Your task to perform on an android device: allow cookies in the chrome app Image 0: 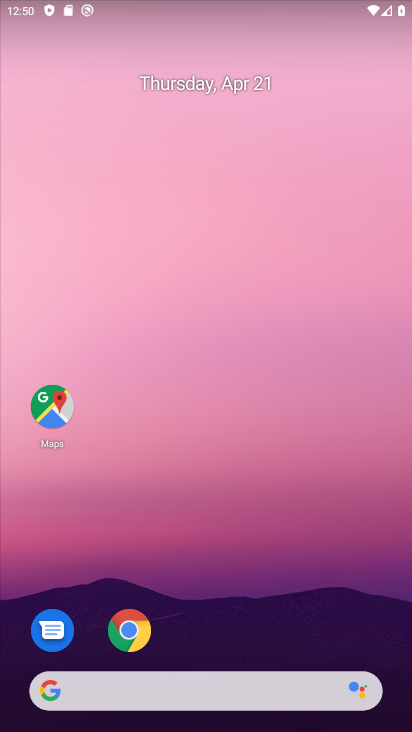
Step 0: click (146, 641)
Your task to perform on an android device: allow cookies in the chrome app Image 1: 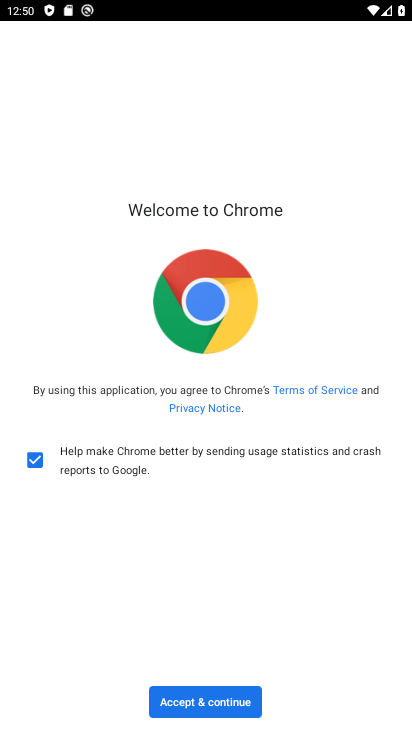
Step 1: click (186, 704)
Your task to perform on an android device: allow cookies in the chrome app Image 2: 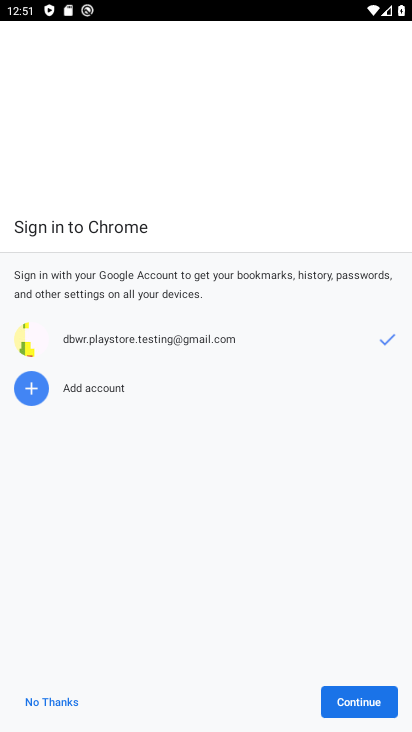
Step 2: click (333, 705)
Your task to perform on an android device: allow cookies in the chrome app Image 3: 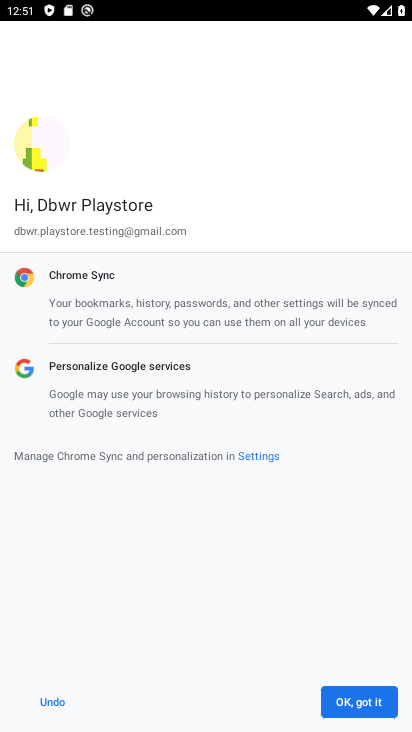
Step 3: click (356, 708)
Your task to perform on an android device: allow cookies in the chrome app Image 4: 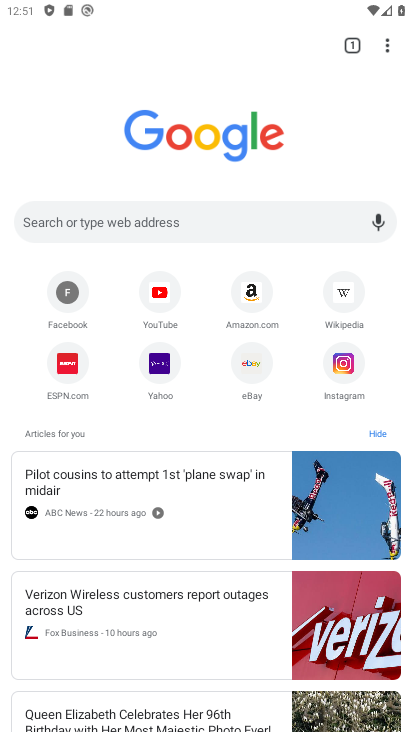
Step 4: click (386, 50)
Your task to perform on an android device: allow cookies in the chrome app Image 5: 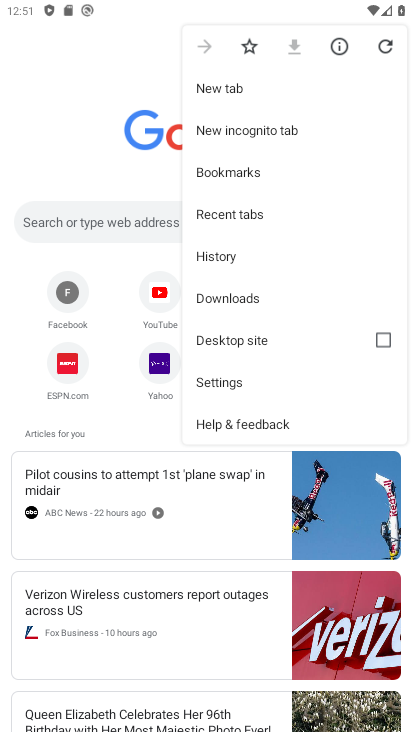
Step 5: click (259, 385)
Your task to perform on an android device: allow cookies in the chrome app Image 6: 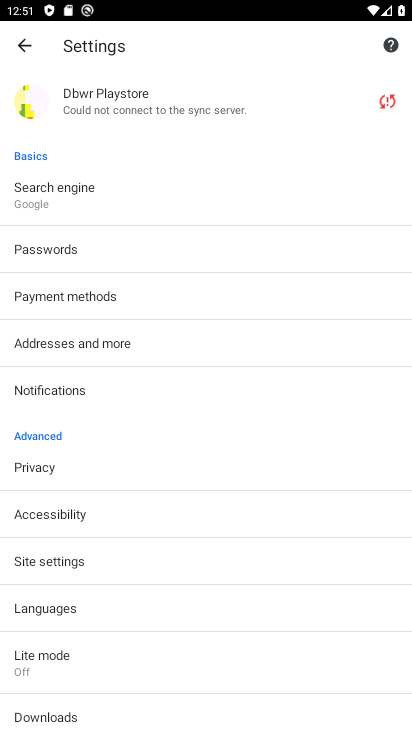
Step 6: drag from (249, 586) to (212, 310)
Your task to perform on an android device: allow cookies in the chrome app Image 7: 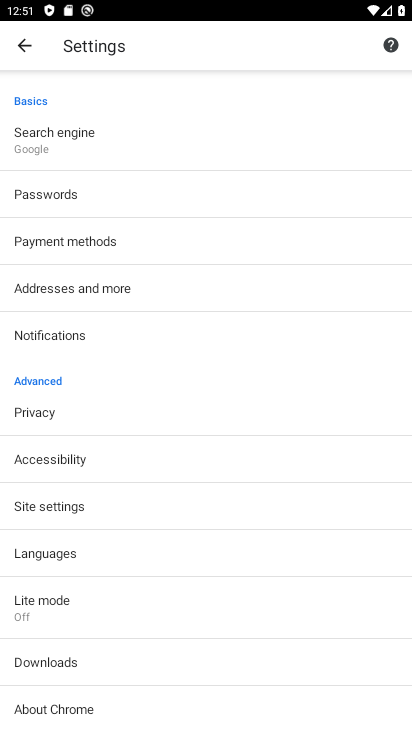
Step 7: click (74, 504)
Your task to perform on an android device: allow cookies in the chrome app Image 8: 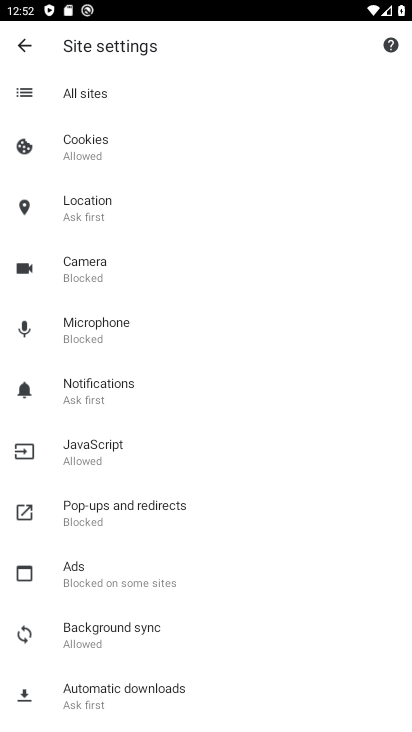
Step 8: click (148, 142)
Your task to perform on an android device: allow cookies in the chrome app Image 9: 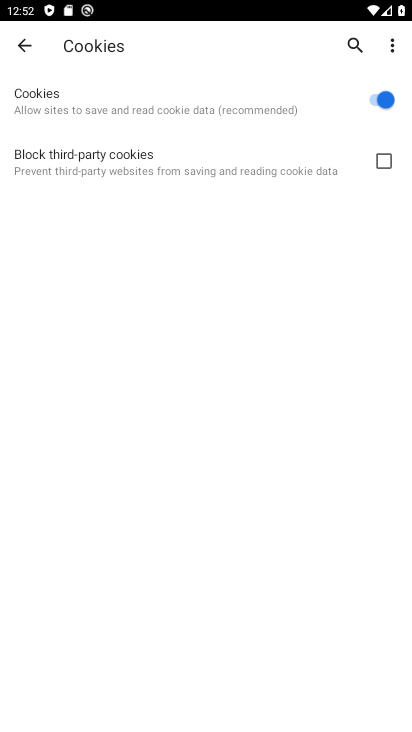
Step 9: task complete